Your task to perform on an android device: change timer sound Image 0: 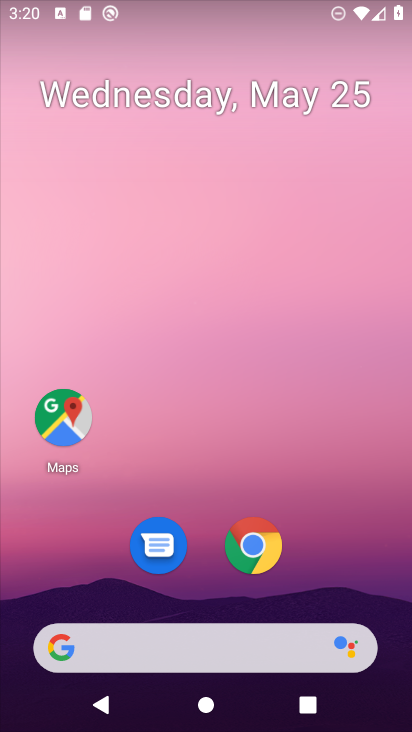
Step 0: drag from (388, 586) to (350, 70)
Your task to perform on an android device: change timer sound Image 1: 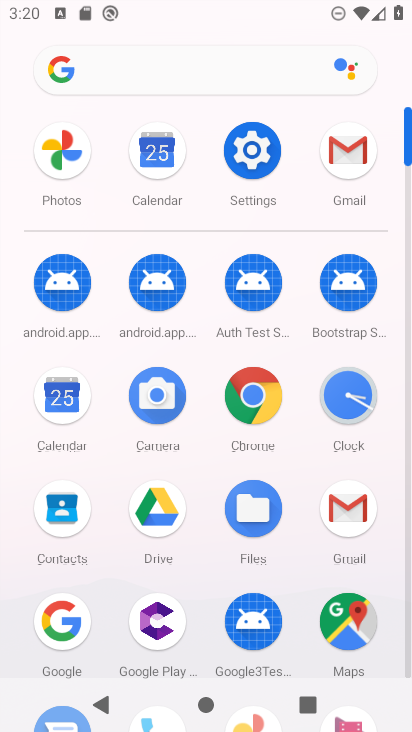
Step 1: click (255, 148)
Your task to perform on an android device: change timer sound Image 2: 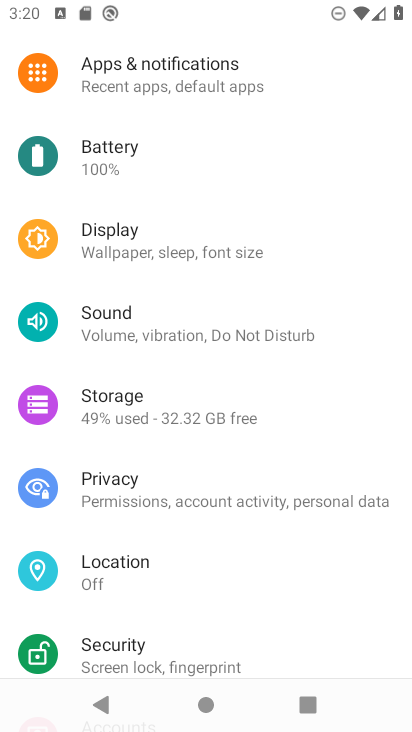
Step 2: click (194, 338)
Your task to perform on an android device: change timer sound Image 3: 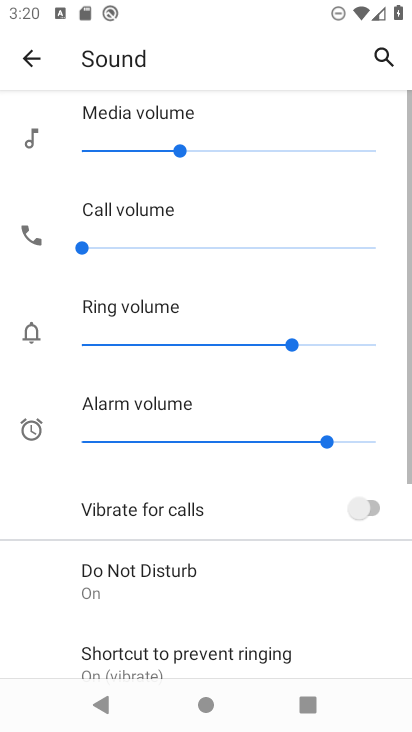
Step 3: task complete